Your task to perform on an android device: turn off location Image 0: 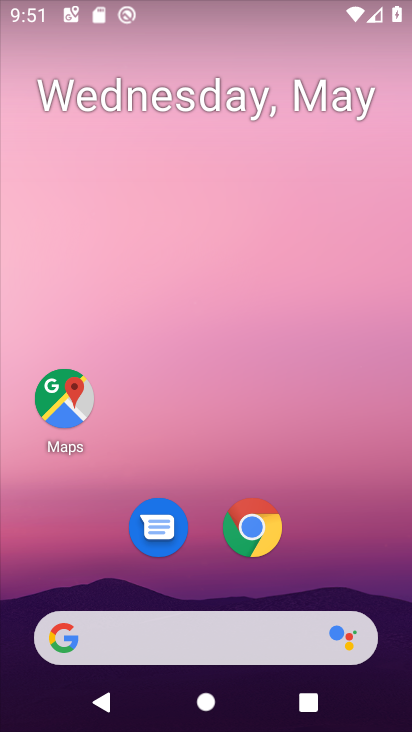
Step 0: drag from (218, 583) to (224, 70)
Your task to perform on an android device: turn off location Image 1: 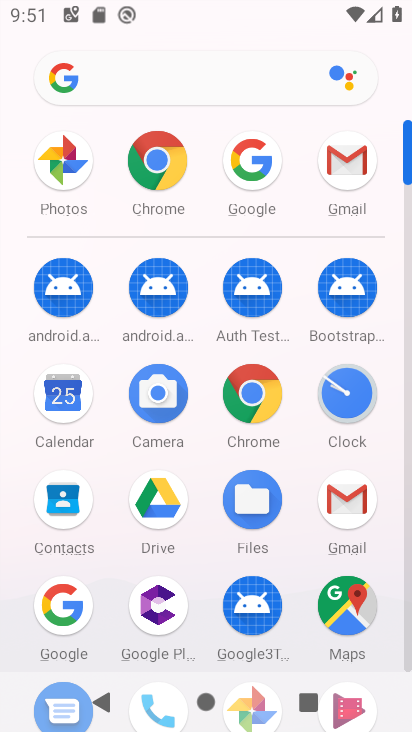
Step 1: drag from (112, 565) to (84, 54)
Your task to perform on an android device: turn off location Image 2: 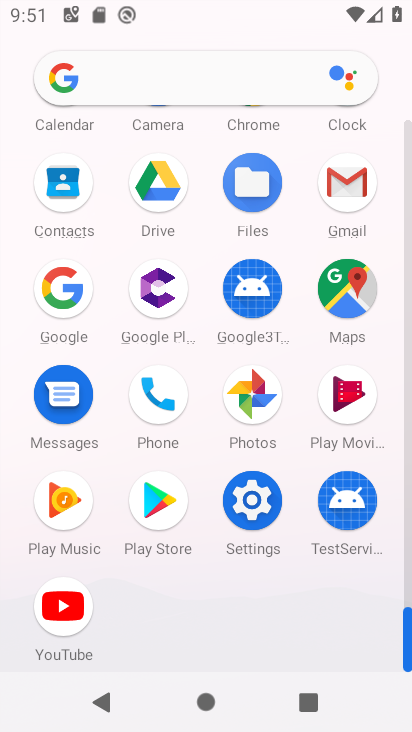
Step 2: click (243, 509)
Your task to perform on an android device: turn off location Image 3: 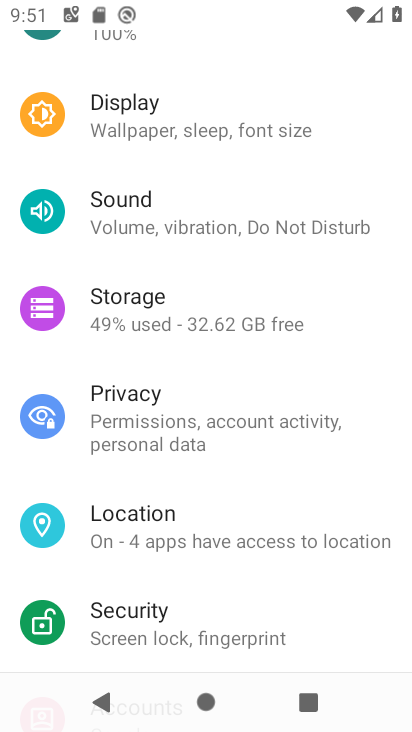
Step 3: click (141, 553)
Your task to perform on an android device: turn off location Image 4: 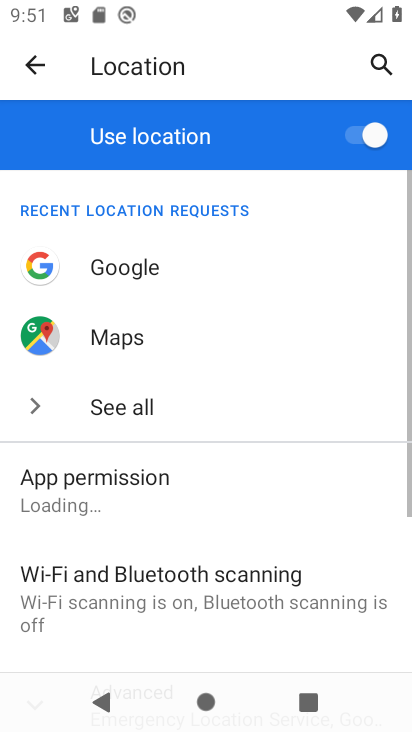
Step 4: click (362, 137)
Your task to perform on an android device: turn off location Image 5: 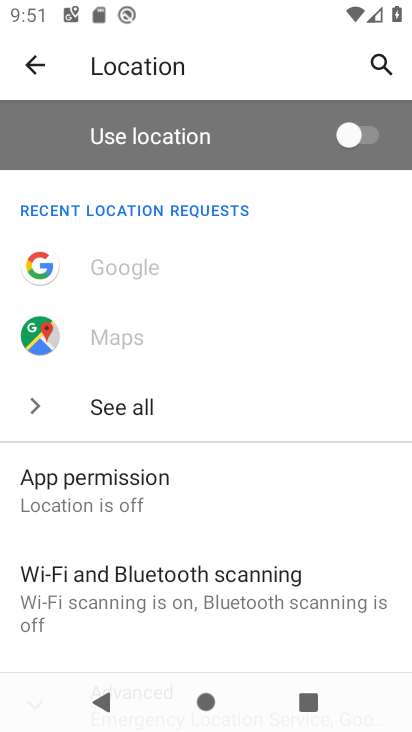
Step 5: task complete